Your task to perform on an android device: turn off location history Image 0: 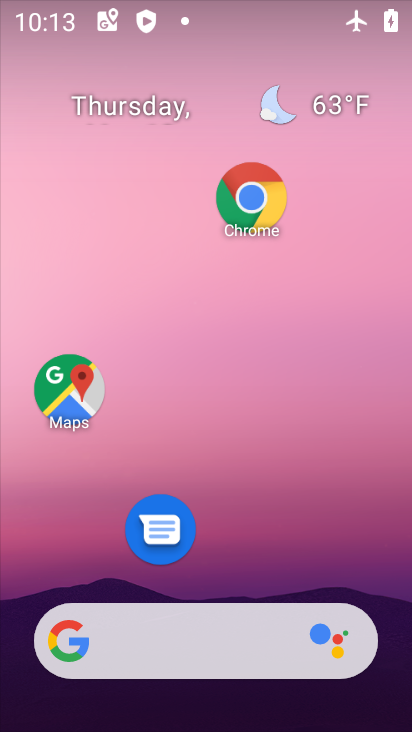
Step 0: drag from (282, 512) to (305, 10)
Your task to perform on an android device: turn off location history Image 1: 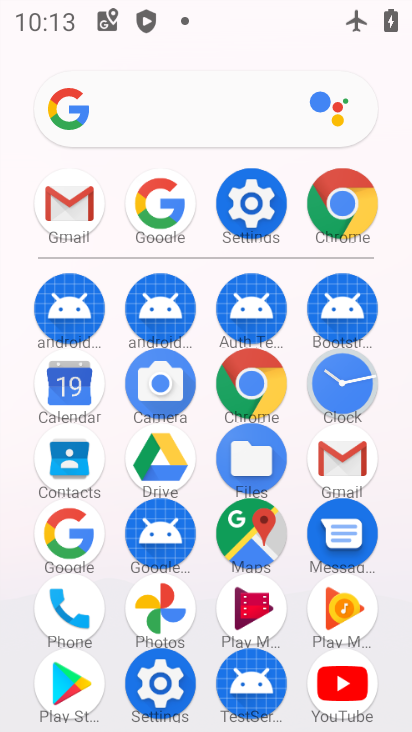
Step 1: click (256, 225)
Your task to perform on an android device: turn off location history Image 2: 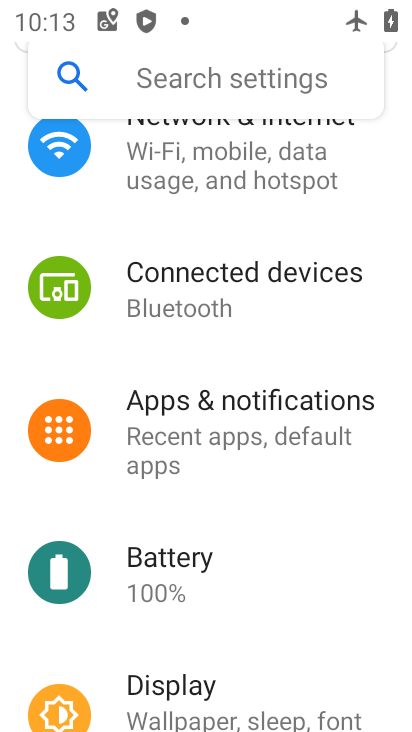
Step 2: drag from (217, 555) to (285, 125)
Your task to perform on an android device: turn off location history Image 3: 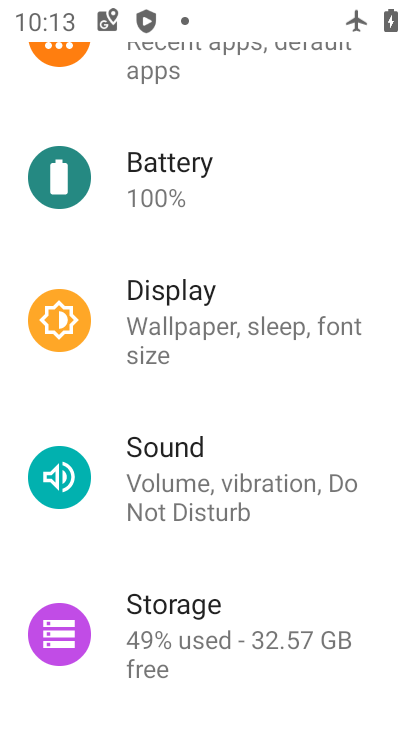
Step 3: drag from (263, 496) to (301, 129)
Your task to perform on an android device: turn off location history Image 4: 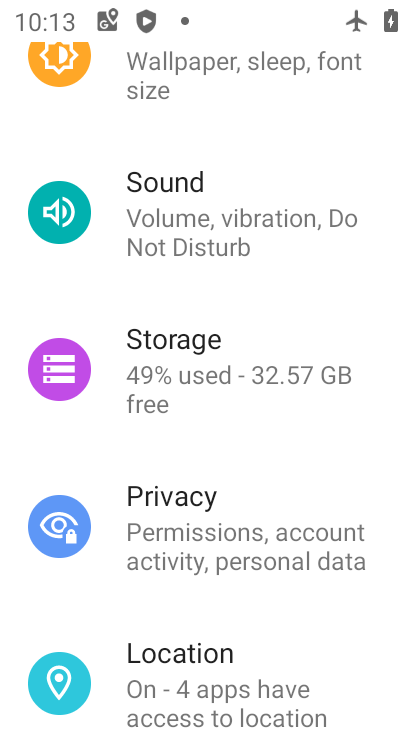
Step 4: click (180, 685)
Your task to perform on an android device: turn off location history Image 5: 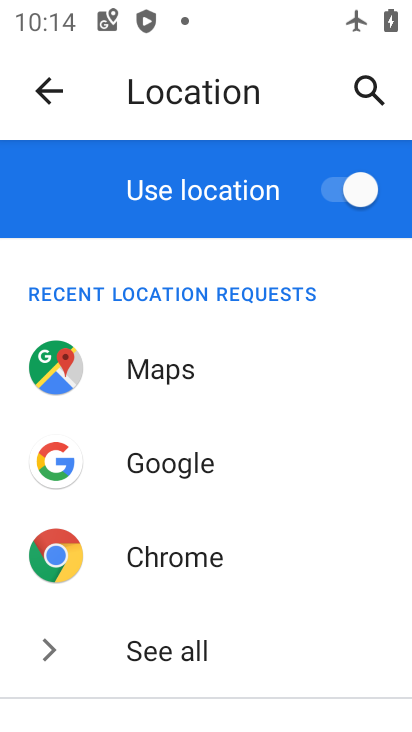
Step 5: drag from (215, 634) to (242, 11)
Your task to perform on an android device: turn off location history Image 6: 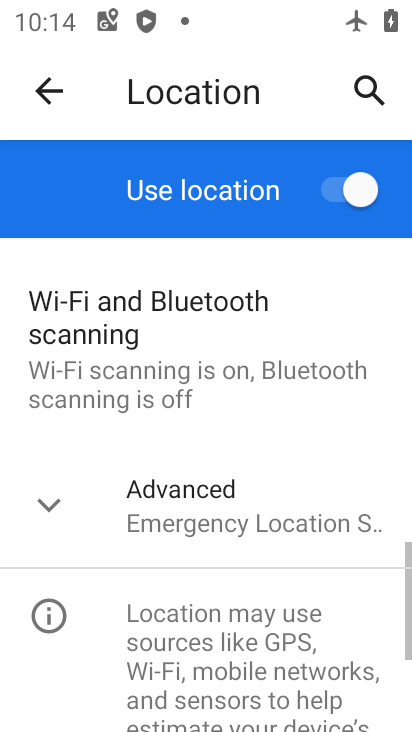
Step 6: click (169, 501)
Your task to perform on an android device: turn off location history Image 7: 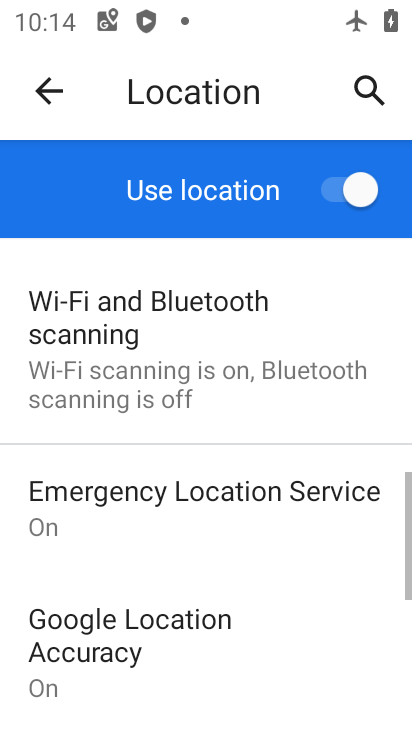
Step 7: drag from (176, 596) to (230, 124)
Your task to perform on an android device: turn off location history Image 8: 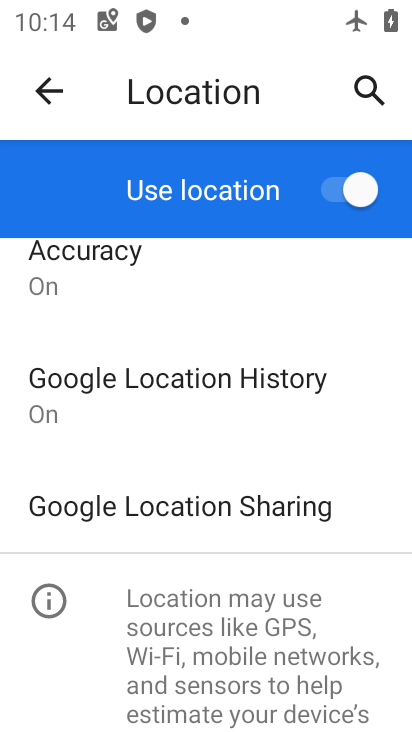
Step 8: click (205, 408)
Your task to perform on an android device: turn off location history Image 9: 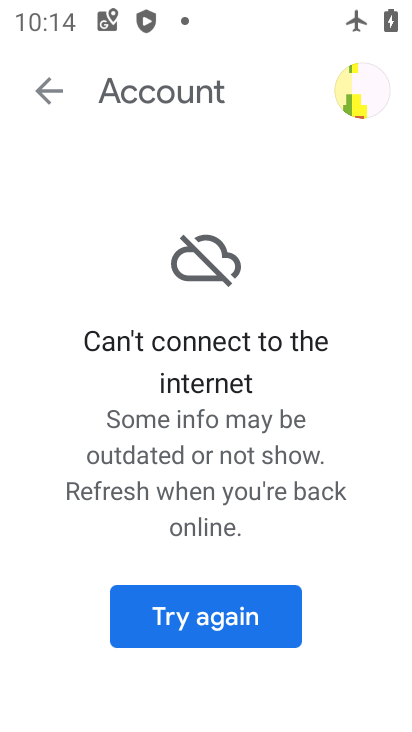
Step 9: task complete